Your task to perform on an android device: Go to Wikipedia Image 0: 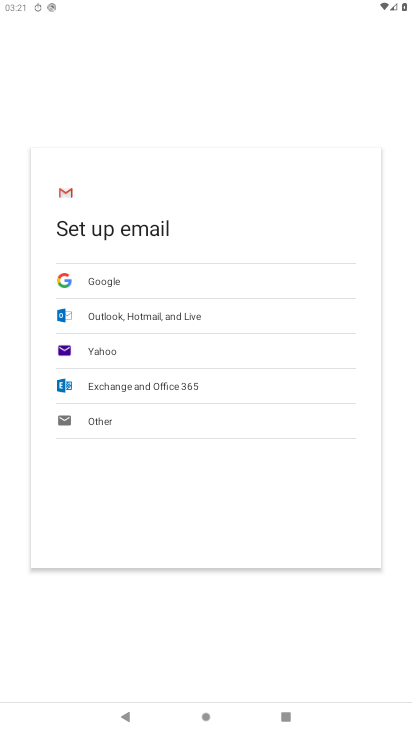
Step 0: press home button
Your task to perform on an android device: Go to Wikipedia Image 1: 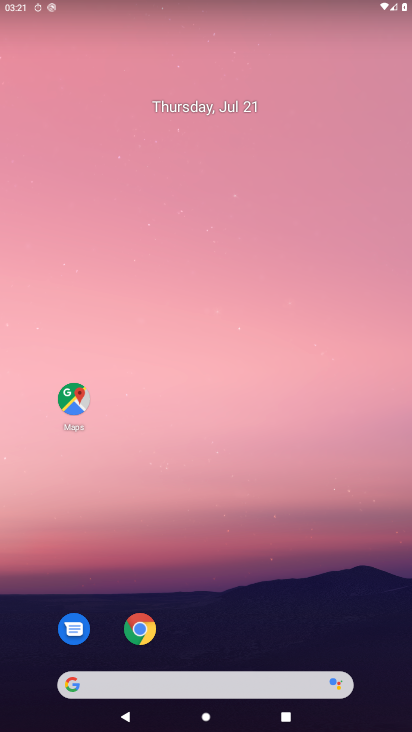
Step 1: click (101, 686)
Your task to perform on an android device: Go to Wikipedia Image 2: 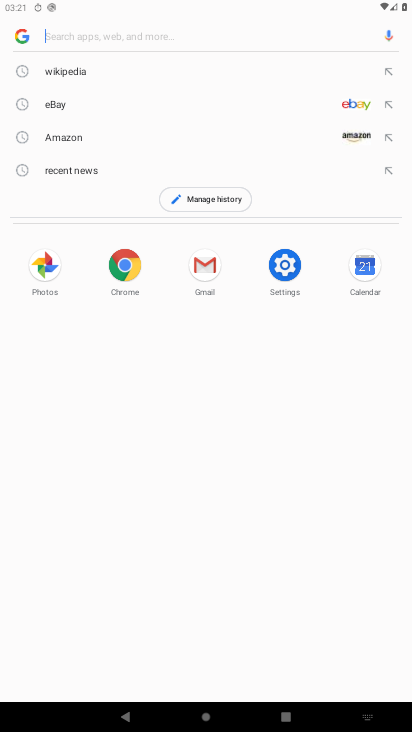
Step 2: drag from (307, 503) to (298, 560)
Your task to perform on an android device: Go to Wikipedia Image 3: 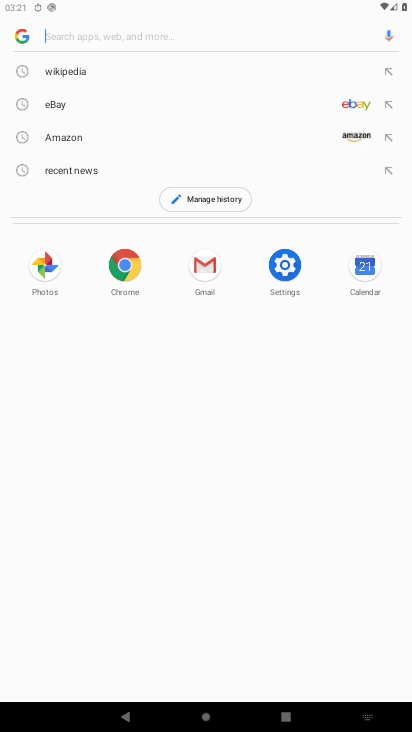
Step 3: click (337, 694)
Your task to perform on an android device: Go to Wikipedia Image 4: 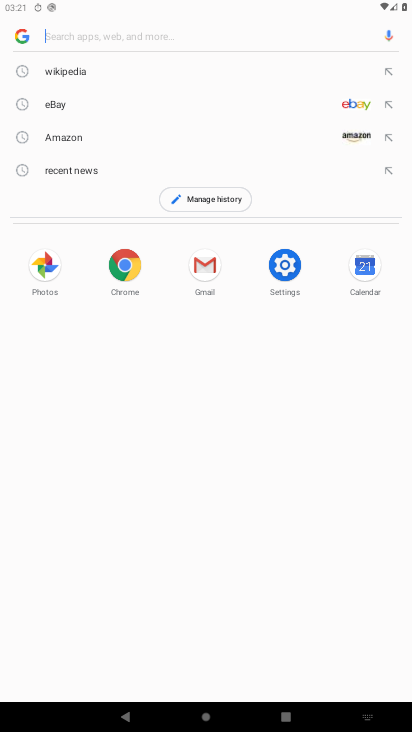
Step 4: type "Wikipedia"
Your task to perform on an android device: Go to Wikipedia Image 5: 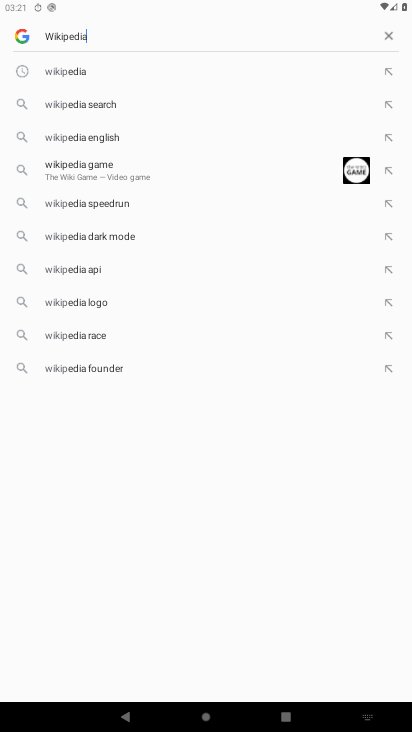
Step 5: type ""
Your task to perform on an android device: Go to Wikipedia Image 6: 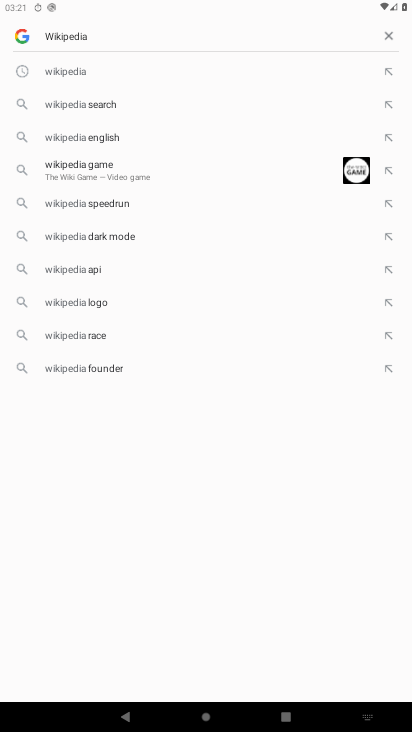
Step 6: click (60, 74)
Your task to perform on an android device: Go to Wikipedia Image 7: 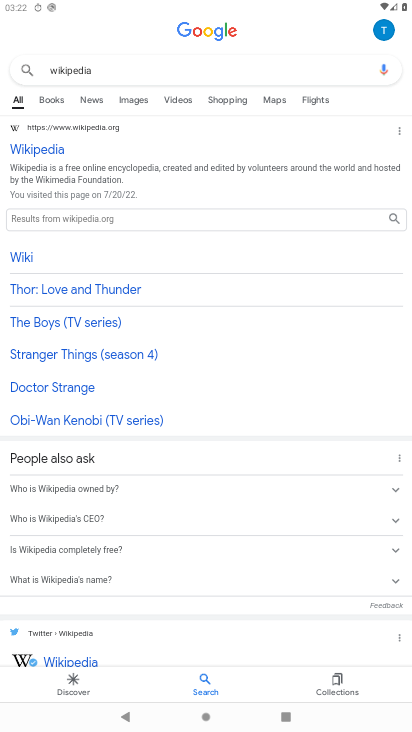
Step 7: task complete